Your task to perform on an android device: toggle notification dots Image 0: 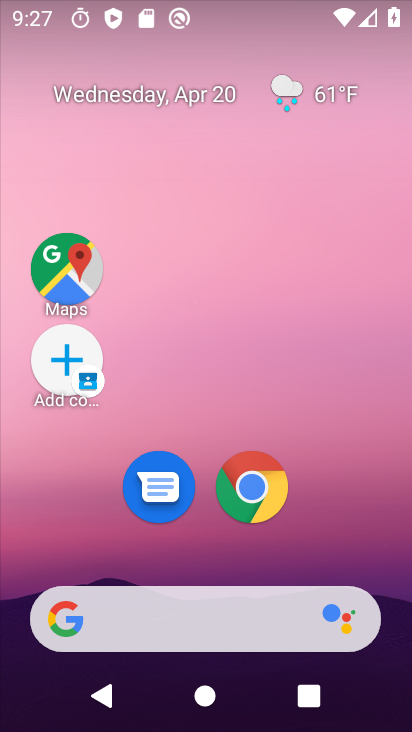
Step 0: drag from (281, 543) to (247, 180)
Your task to perform on an android device: toggle notification dots Image 1: 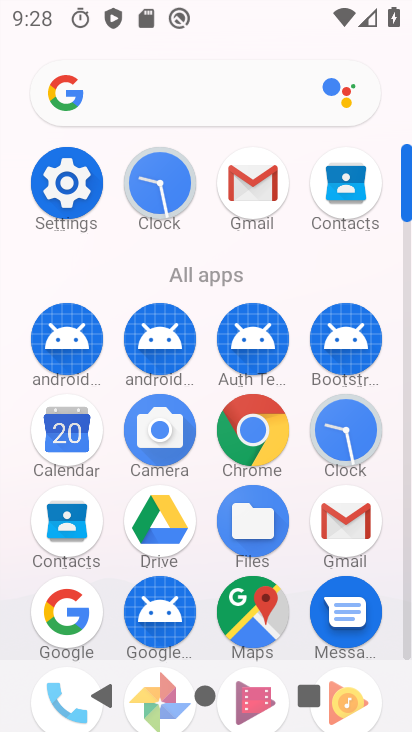
Step 1: click (72, 183)
Your task to perform on an android device: toggle notification dots Image 2: 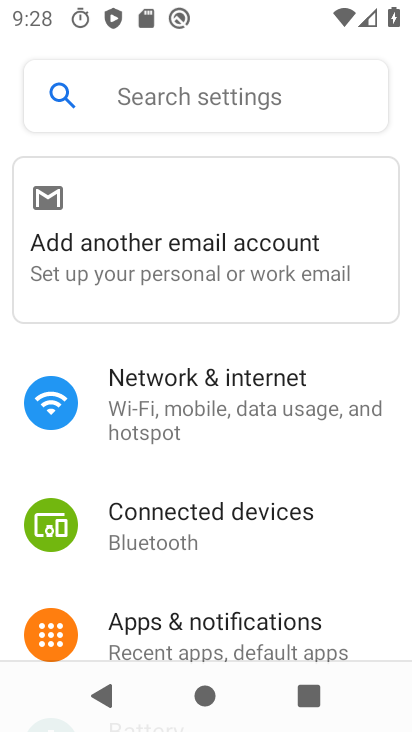
Step 2: click (138, 619)
Your task to perform on an android device: toggle notification dots Image 3: 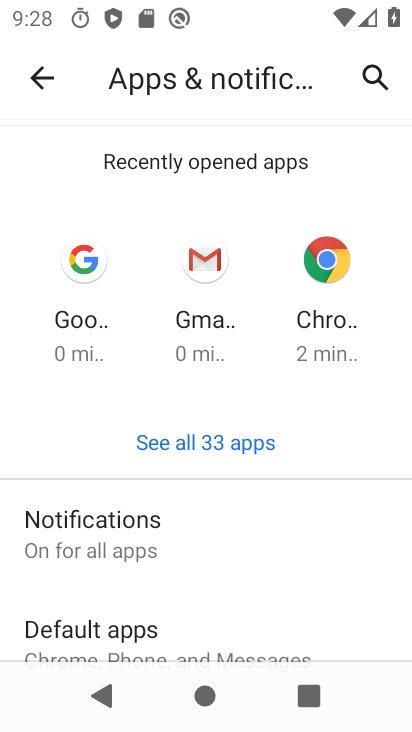
Step 3: click (96, 542)
Your task to perform on an android device: toggle notification dots Image 4: 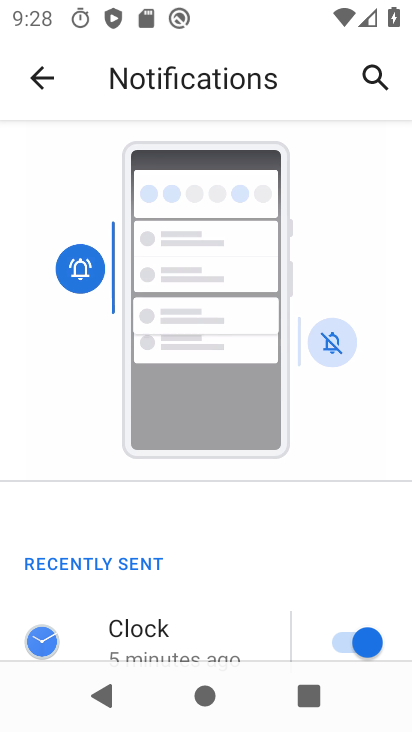
Step 4: drag from (106, 566) to (98, 434)
Your task to perform on an android device: toggle notification dots Image 5: 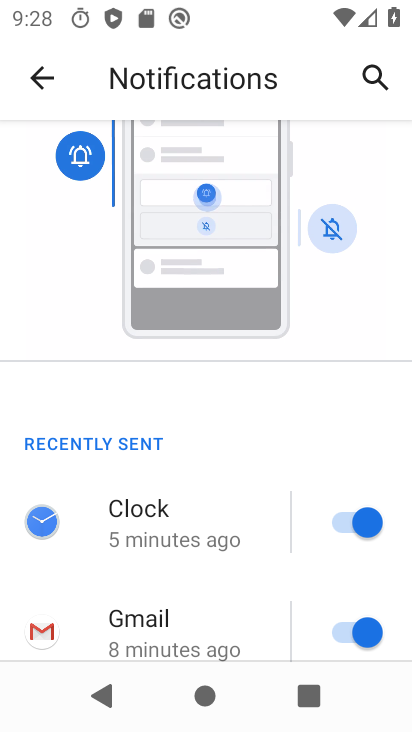
Step 5: drag from (94, 557) to (71, 462)
Your task to perform on an android device: toggle notification dots Image 6: 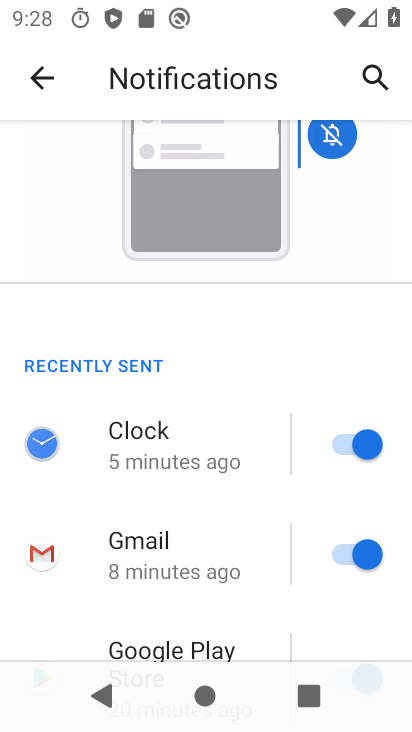
Step 6: drag from (103, 527) to (91, 429)
Your task to perform on an android device: toggle notification dots Image 7: 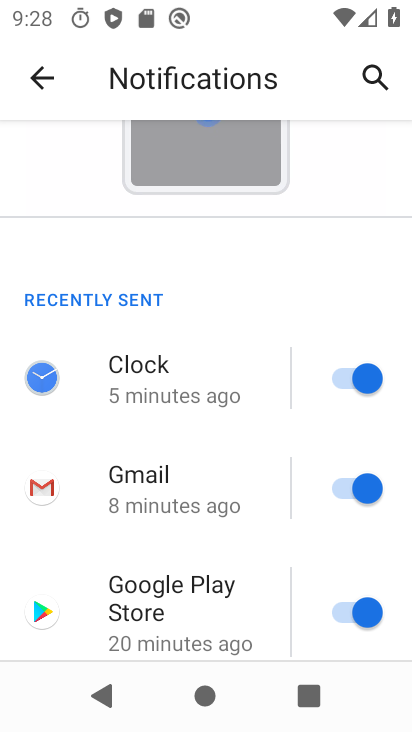
Step 7: drag from (86, 533) to (61, 441)
Your task to perform on an android device: toggle notification dots Image 8: 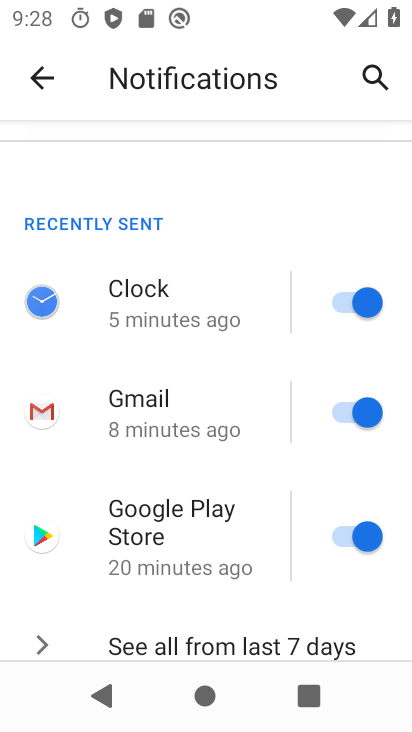
Step 8: drag from (68, 509) to (54, 444)
Your task to perform on an android device: toggle notification dots Image 9: 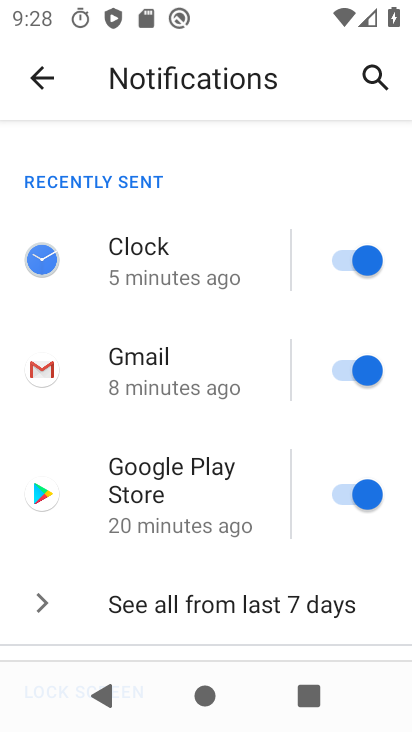
Step 9: drag from (54, 508) to (35, 434)
Your task to perform on an android device: toggle notification dots Image 10: 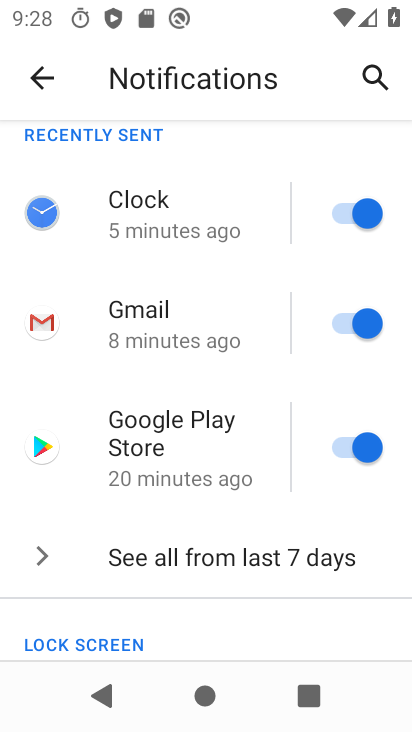
Step 10: drag from (50, 509) to (37, 424)
Your task to perform on an android device: toggle notification dots Image 11: 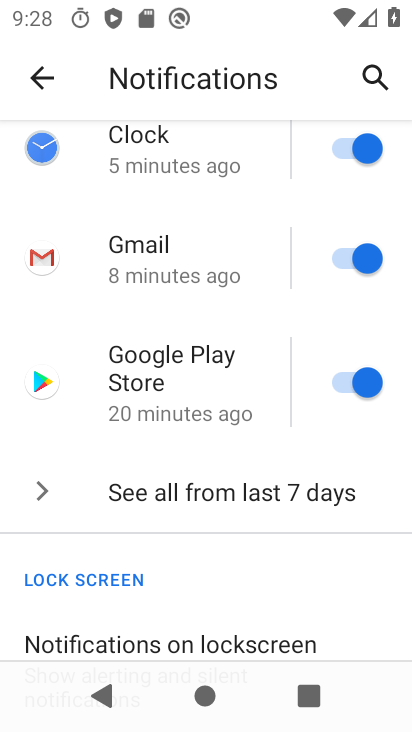
Step 11: drag from (49, 485) to (31, 400)
Your task to perform on an android device: toggle notification dots Image 12: 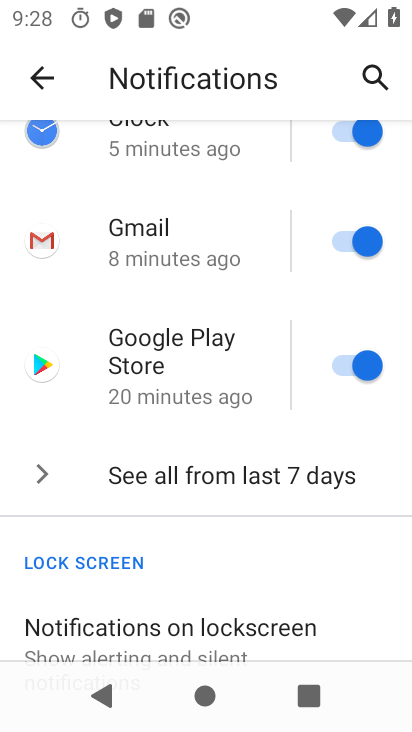
Step 12: drag from (36, 473) to (29, 409)
Your task to perform on an android device: toggle notification dots Image 13: 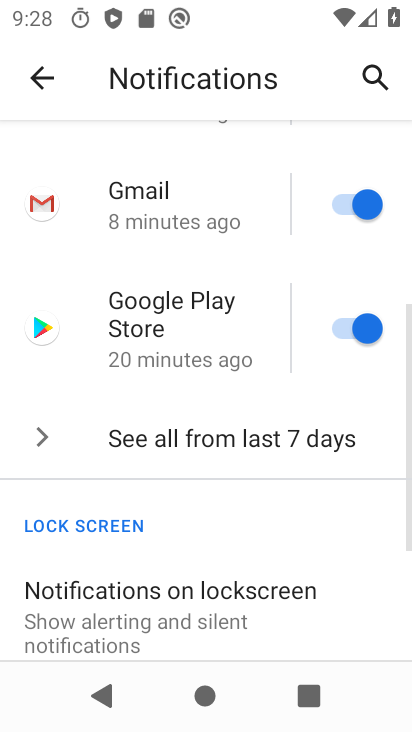
Step 13: drag from (47, 488) to (32, 421)
Your task to perform on an android device: toggle notification dots Image 14: 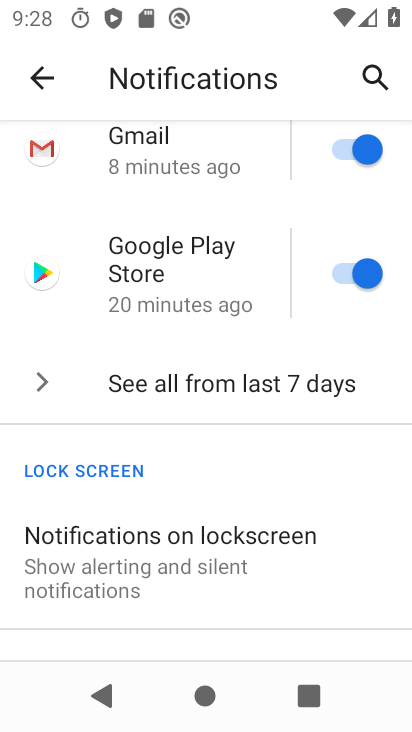
Step 14: drag from (44, 500) to (9, 388)
Your task to perform on an android device: toggle notification dots Image 15: 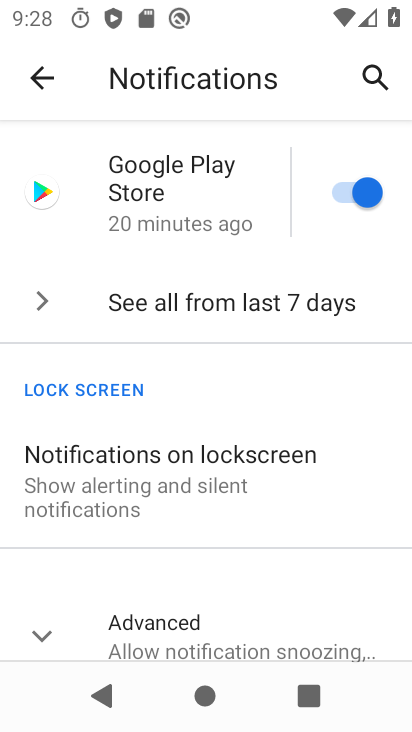
Step 15: click (115, 638)
Your task to perform on an android device: toggle notification dots Image 16: 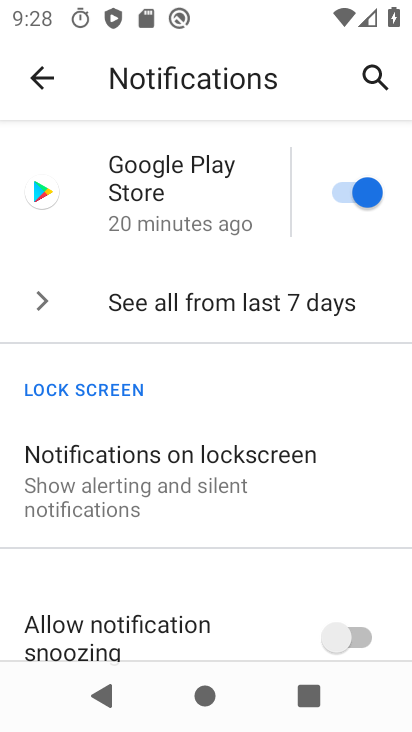
Step 16: drag from (120, 642) to (128, 538)
Your task to perform on an android device: toggle notification dots Image 17: 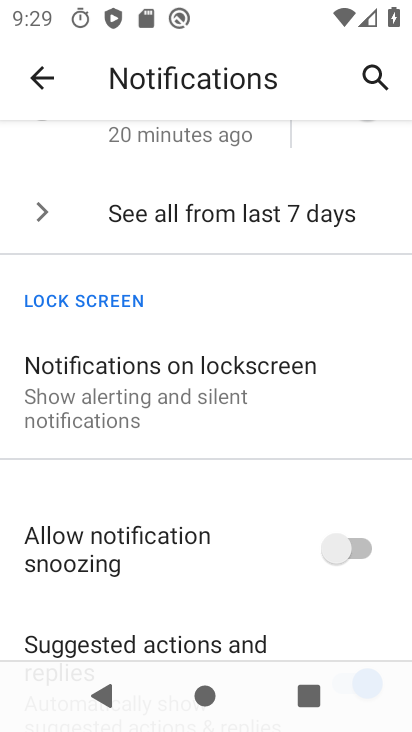
Step 17: drag from (127, 611) to (112, 521)
Your task to perform on an android device: toggle notification dots Image 18: 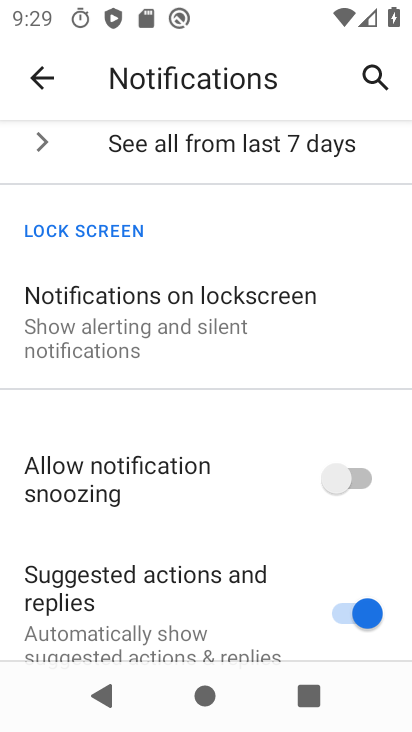
Step 18: drag from (133, 567) to (126, 482)
Your task to perform on an android device: toggle notification dots Image 19: 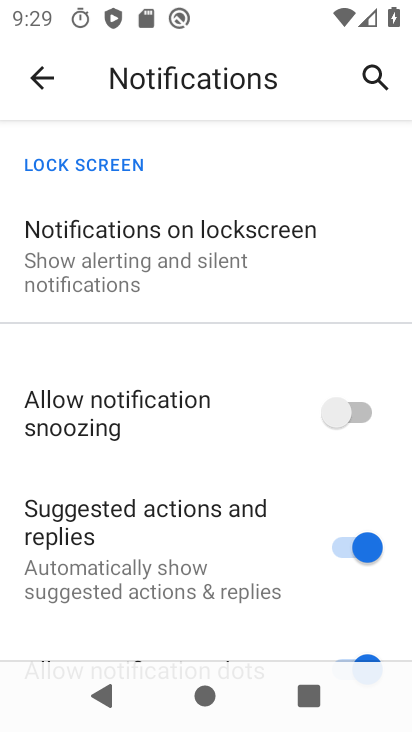
Step 19: drag from (148, 543) to (139, 475)
Your task to perform on an android device: toggle notification dots Image 20: 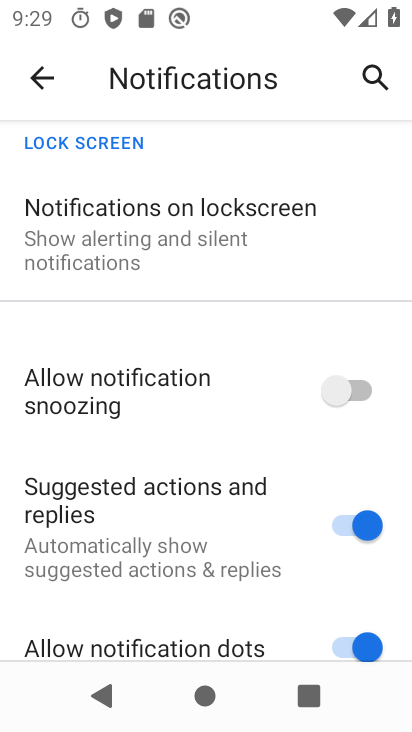
Step 20: drag from (153, 558) to (137, 440)
Your task to perform on an android device: toggle notification dots Image 21: 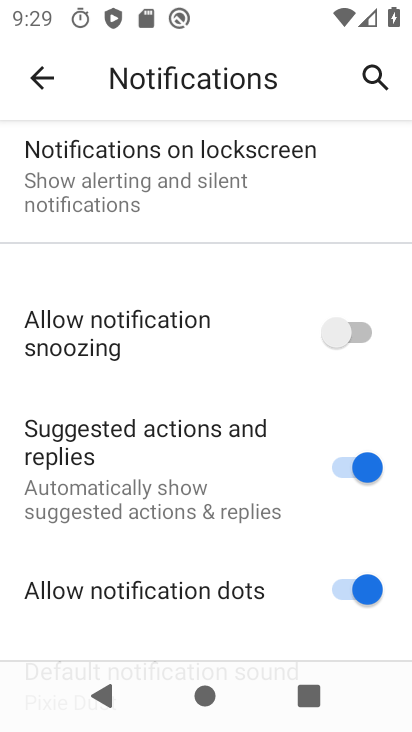
Step 21: click (373, 589)
Your task to perform on an android device: toggle notification dots Image 22: 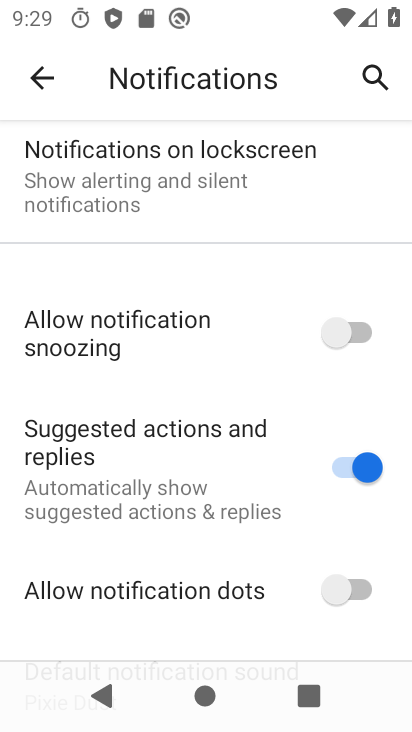
Step 22: task complete